Your task to perform on an android device: Check the news Image 0: 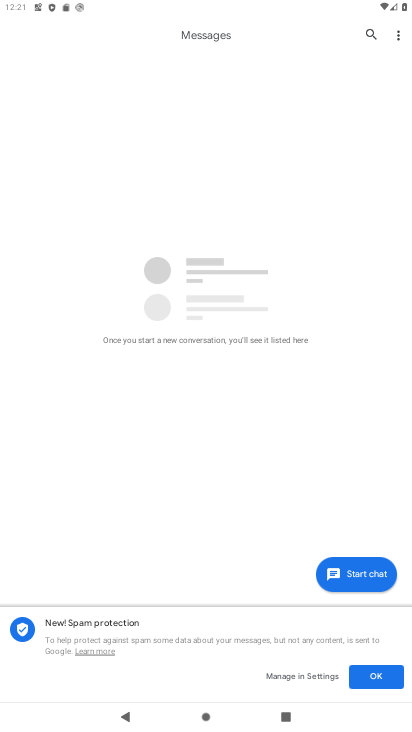
Step 0: press home button
Your task to perform on an android device: Check the news Image 1: 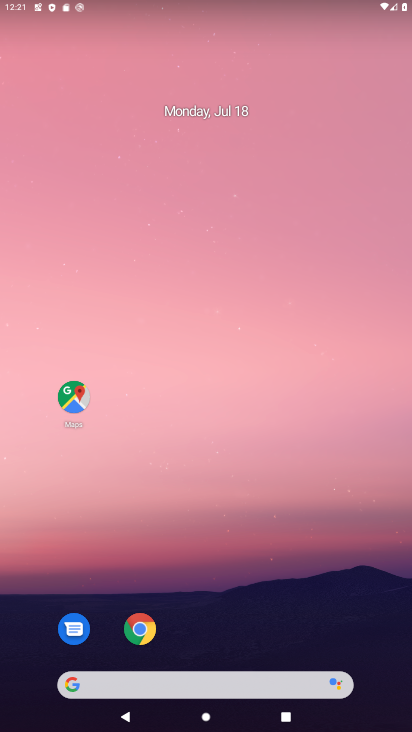
Step 1: click (132, 630)
Your task to perform on an android device: Check the news Image 2: 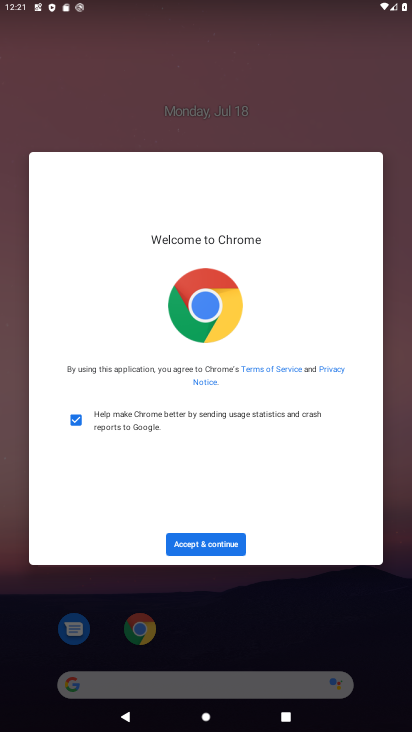
Step 2: click (211, 537)
Your task to perform on an android device: Check the news Image 3: 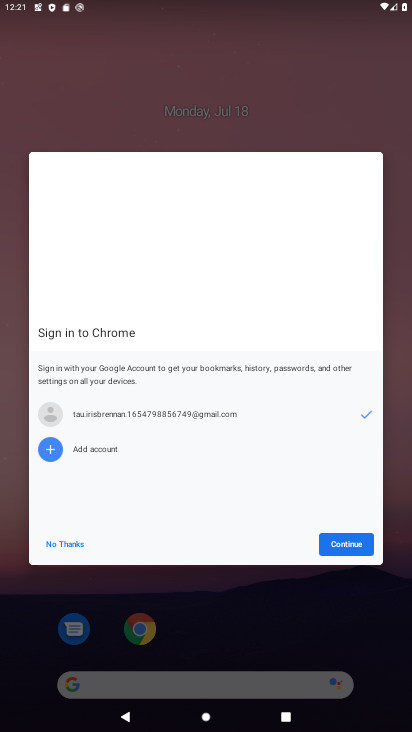
Step 3: click (380, 537)
Your task to perform on an android device: Check the news Image 4: 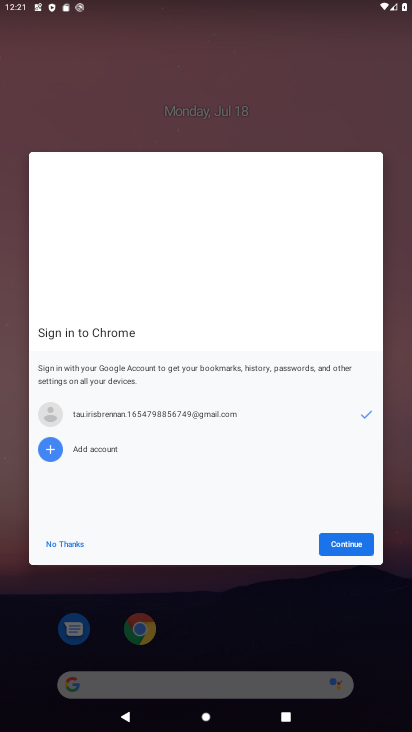
Step 4: click (375, 537)
Your task to perform on an android device: Check the news Image 5: 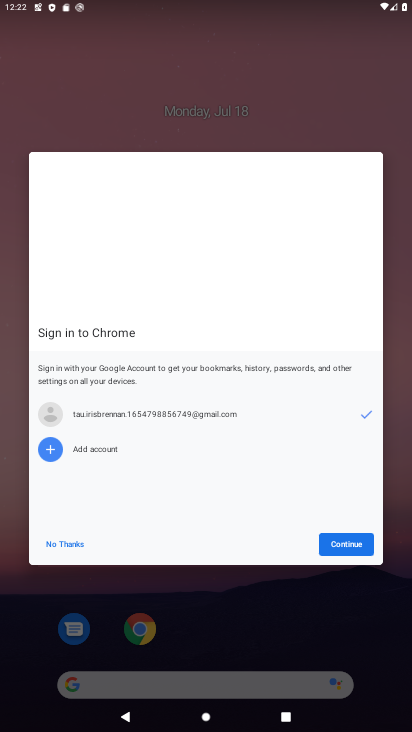
Step 5: click (338, 542)
Your task to perform on an android device: Check the news Image 6: 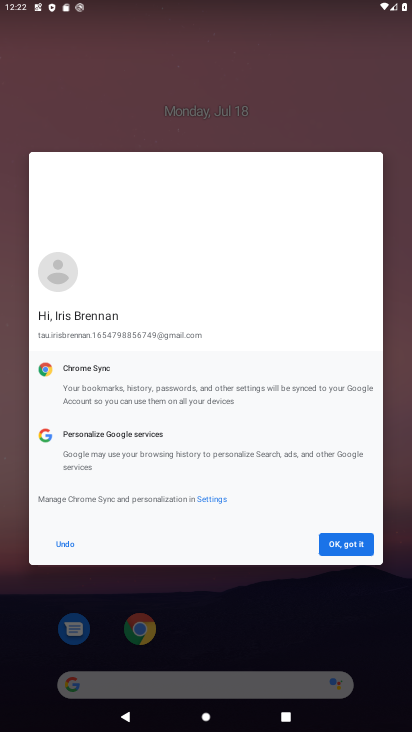
Step 6: click (329, 538)
Your task to perform on an android device: Check the news Image 7: 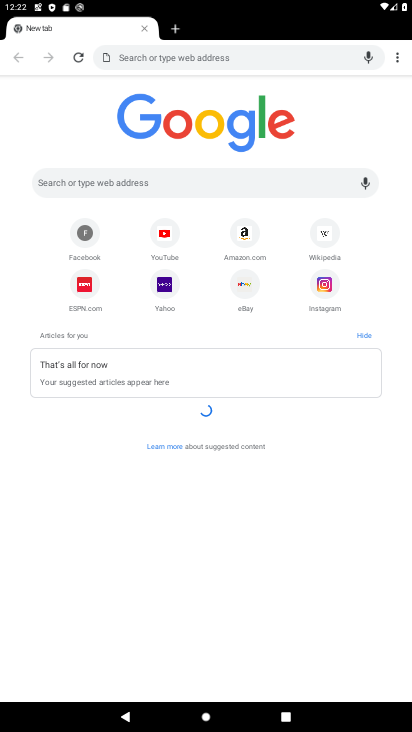
Step 7: click (180, 62)
Your task to perform on an android device: Check the news Image 8: 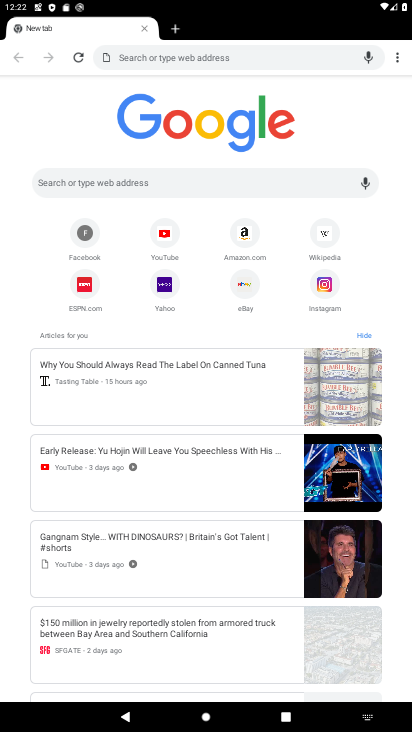
Step 8: type "Check the news "
Your task to perform on an android device: Check the news Image 9: 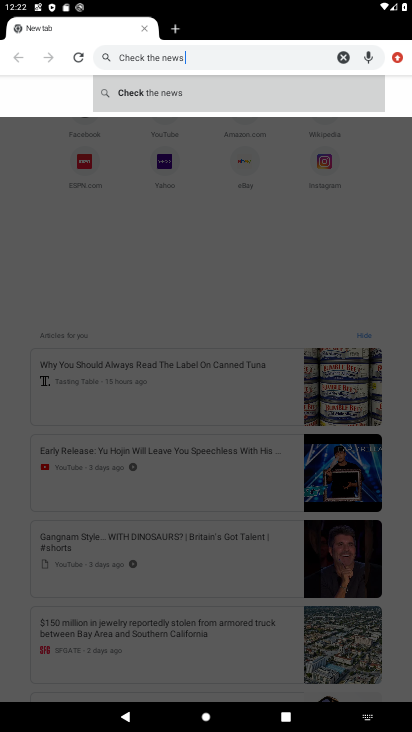
Step 9: click (247, 99)
Your task to perform on an android device: Check the news Image 10: 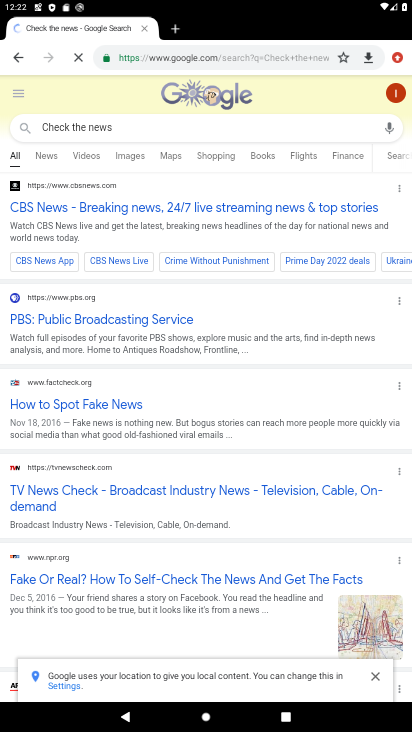
Step 10: task complete